Your task to perform on an android device: turn on location history Image 0: 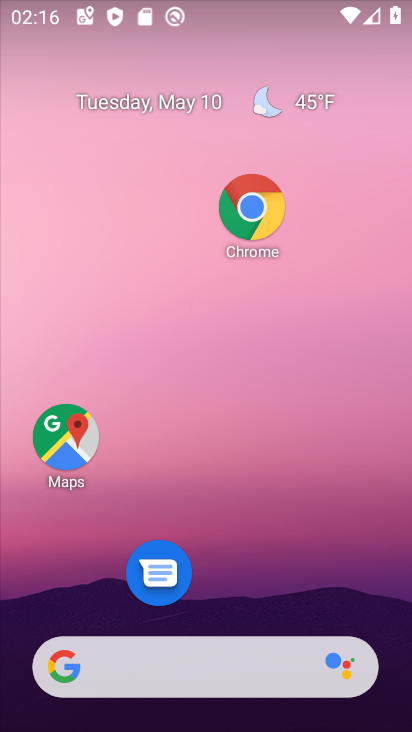
Step 0: drag from (257, 606) to (382, 4)
Your task to perform on an android device: turn on location history Image 1: 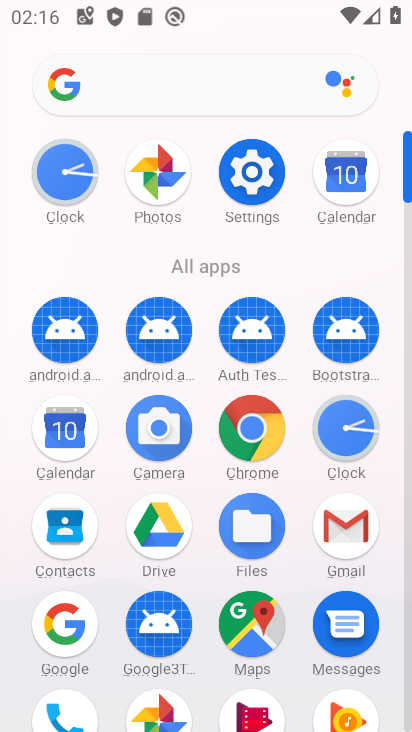
Step 1: click (266, 188)
Your task to perform on an android device: turn on location history Image 2: 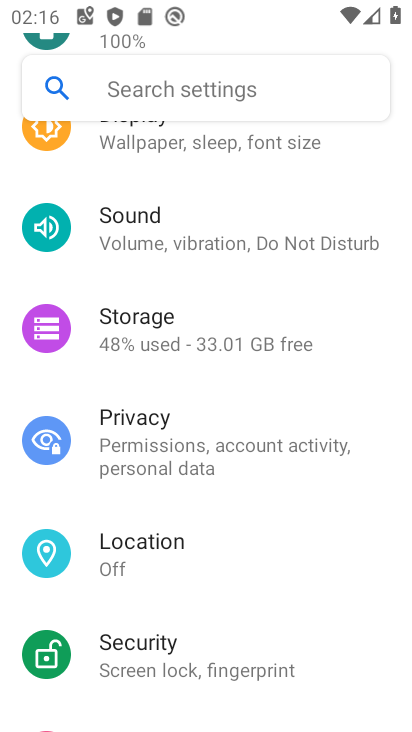
Step 2: click (170, 568)
Your task to perform on an android device: turn on location history Image 3: 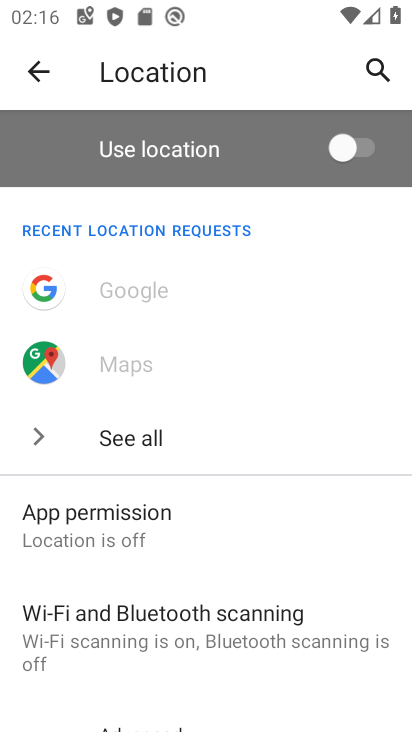
Step 3: drag from (197, 573) to (229, 234)
Your task to perform on an android device: turn on location history Image 4: 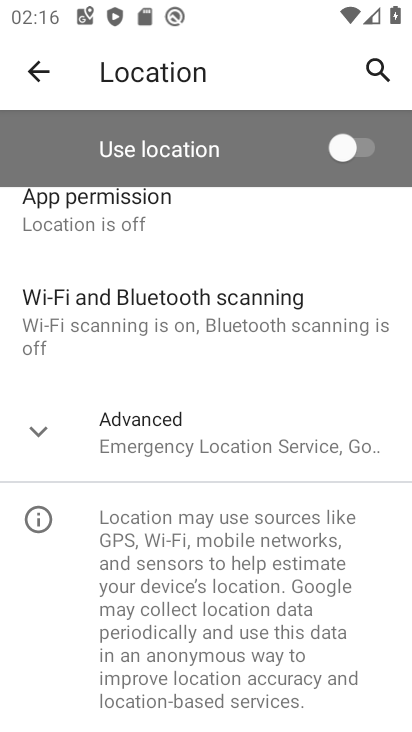
Step 4: click (187, 455)
Your task to perform on an android device: turn on location history Image 5: 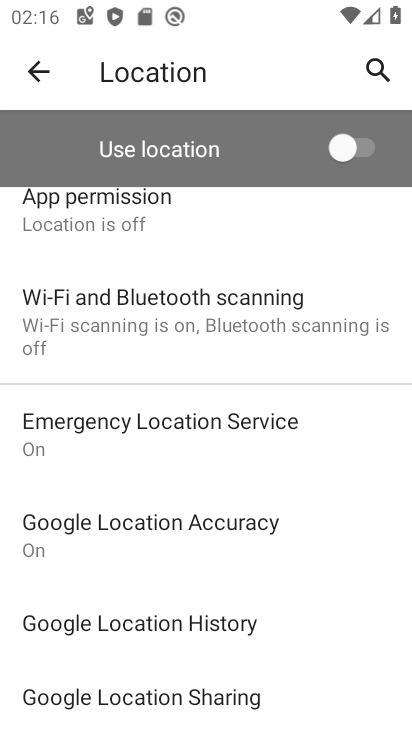
Step 5: click (176, 624)
Your task to perform on an android device: turn on location history Image 6: 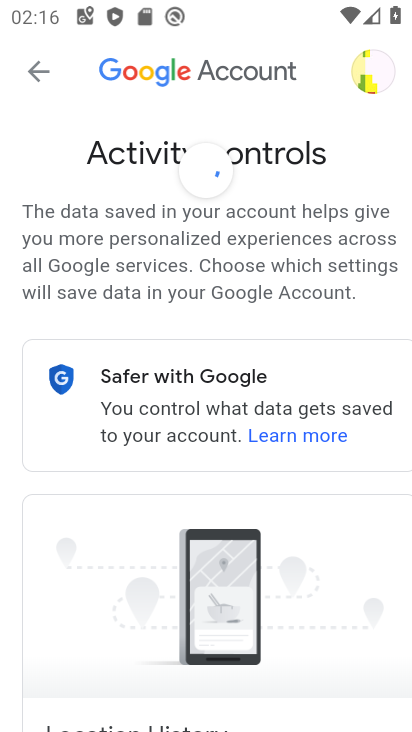
Step 6: drag from (245, 536) to (306, 119)
Your task to perform on an android device: turn on location history Image 7: 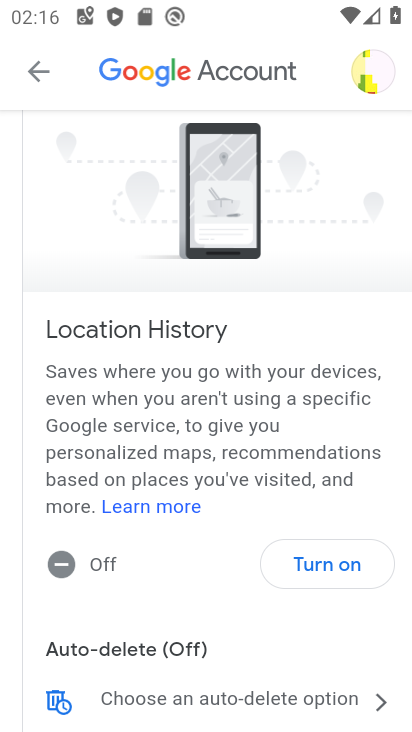
Step 7: click (331, 566)
Your task to perform on an android device: turn on location history Image 8: 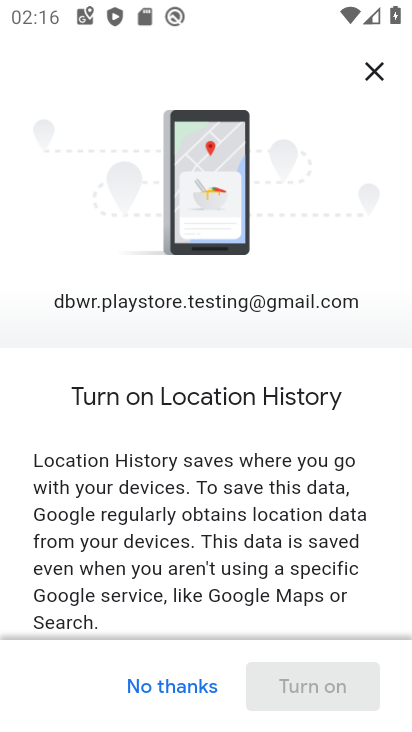
Step 8: drag from (262, 600) to (292, 30)
Your task to perform on an android device: turn on location history Image 9: 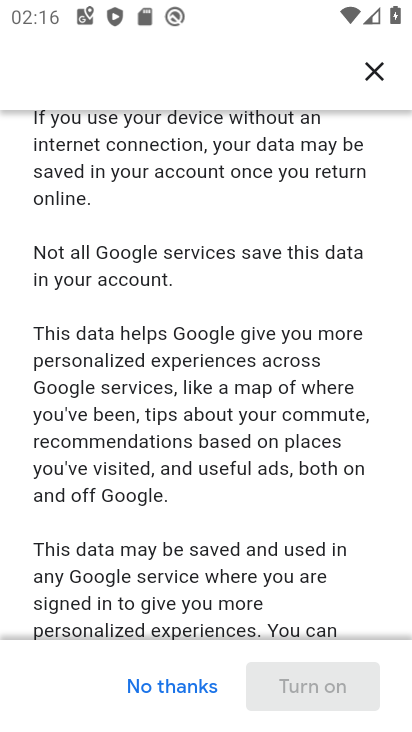
Step 9: drag from (216, 469) to (278, 30)
Your task to perform on an android device: turn on location history Image 10: 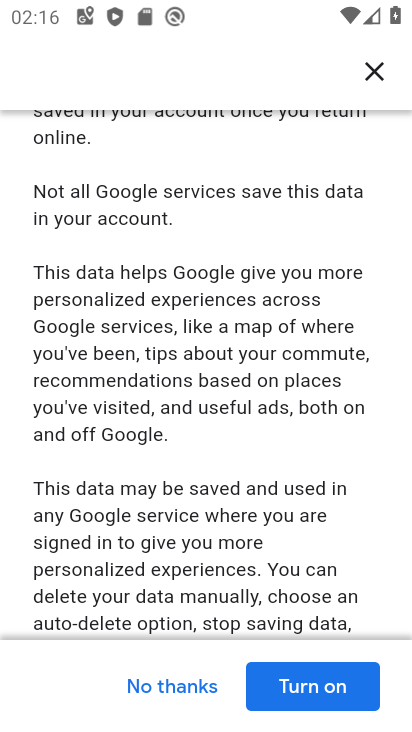
Step 10: click (326, 689)
Your task to perform on an android device: turn on location history Image 11: 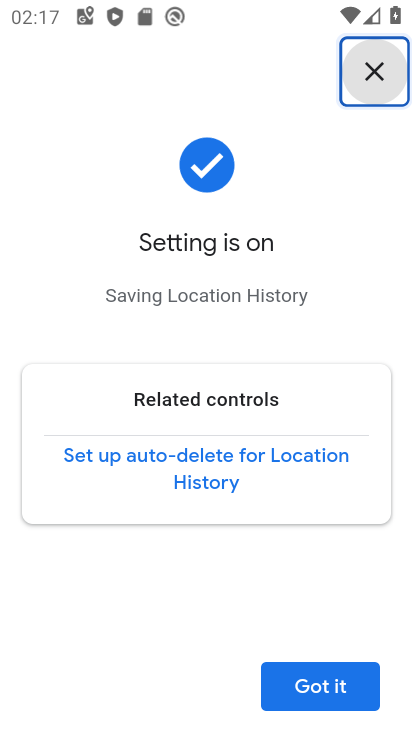
Step 11: click (318, 688)
Your task to perform on an android device: turn on location history Image 12: 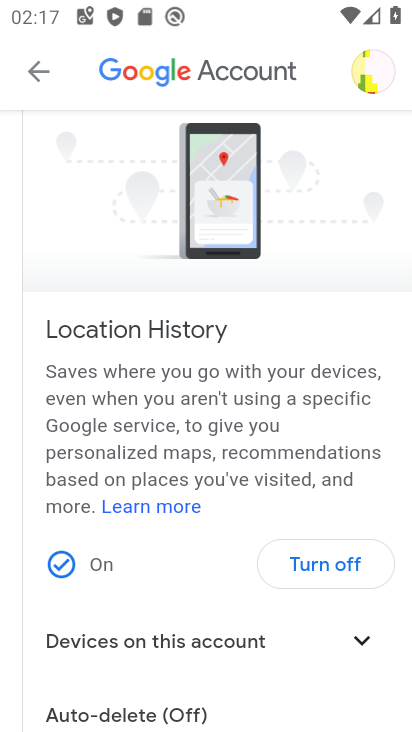
Step 12: task complete